Your task to perform on an android device: Open the phone app and click the voicemail tab. Image 0: 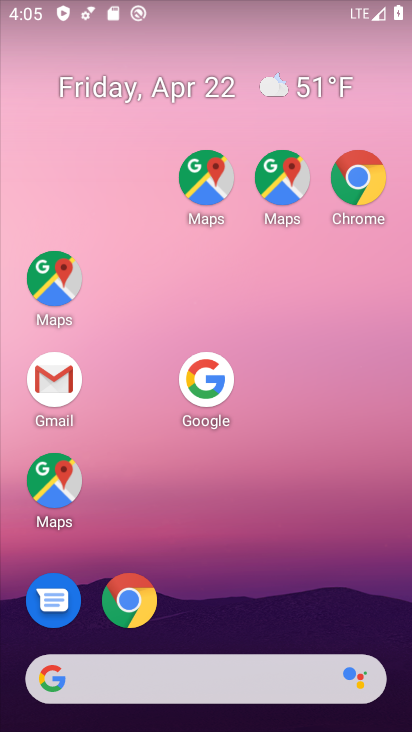
Step 0: drag from (334, 624) to (124, 15)
Your task to perform on an android device: Open the phone app and click the voicemail tab. Image 1: 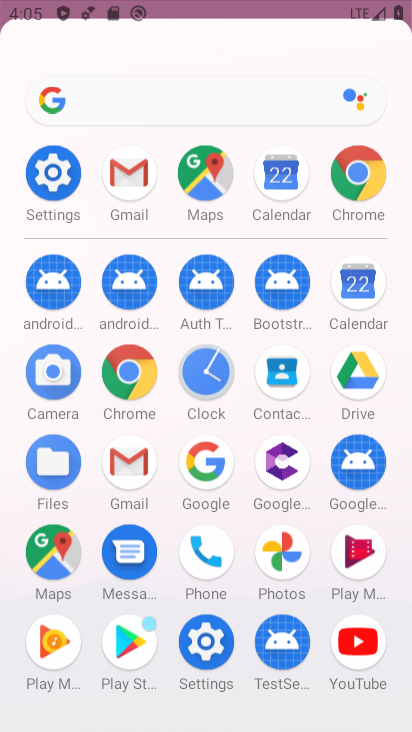
Step 1: click (13, 29)
Your task to perform on an android device: Open the phone app and click the voicemail tab. Image 2: 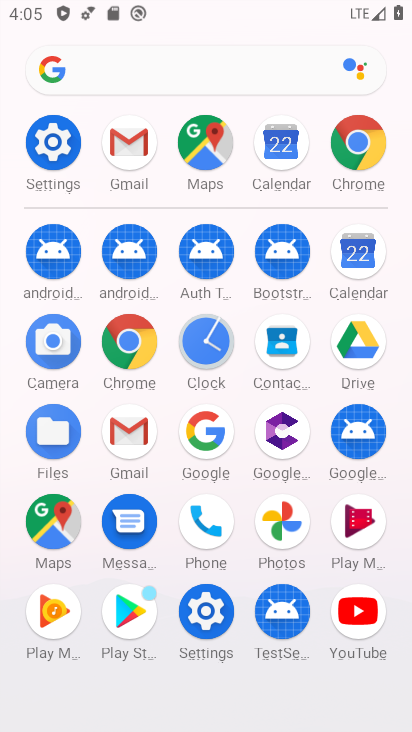
Step 2: click (205, 520)
Your task to perform on an android device: Open the phone app and click the voicemail tab. Image 3: 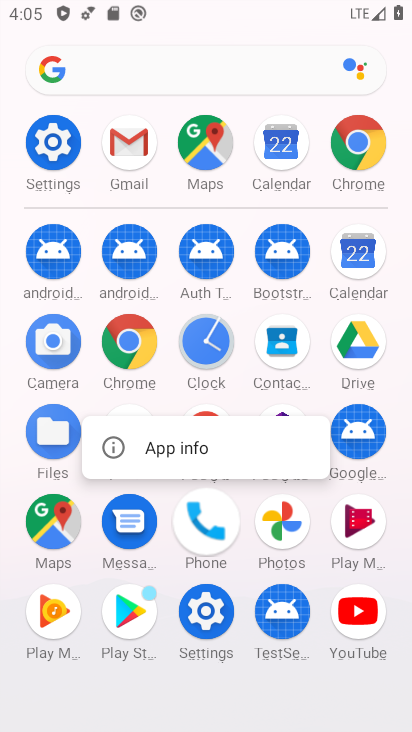
Step 3: click (204, 518)
Your task to perform on an android device: Open the phone app and click the voicemail tab. Image 4: 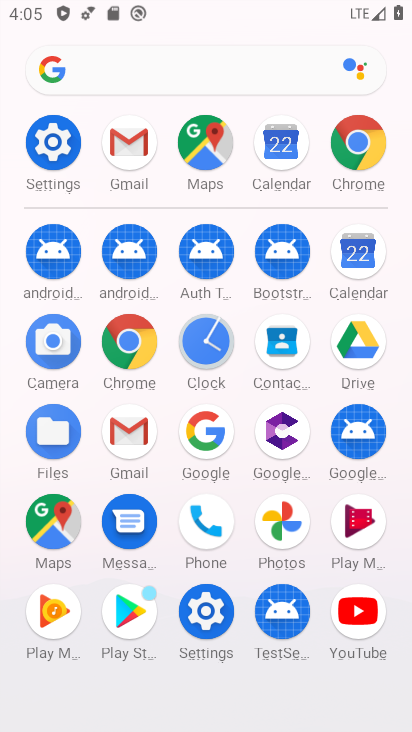
Step 4: click (203, 519)
Your task to perform on an android device: Open the phone app and click the voicemail tab. Image 5: 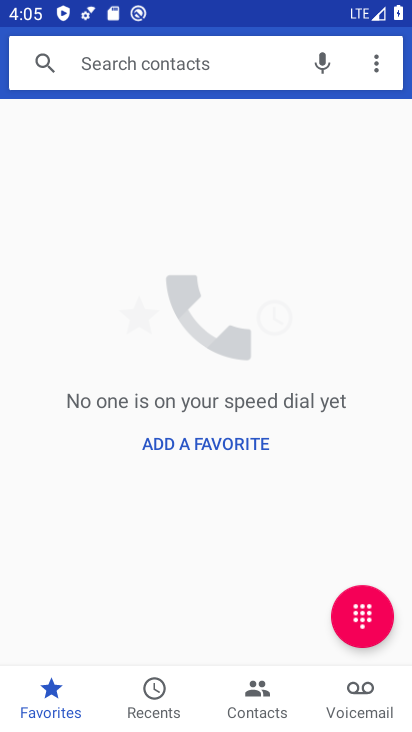
Step 5: click (361, 697)
Your task to perform on an android device: Open the phone app and click the voicemail tab. Image 6: 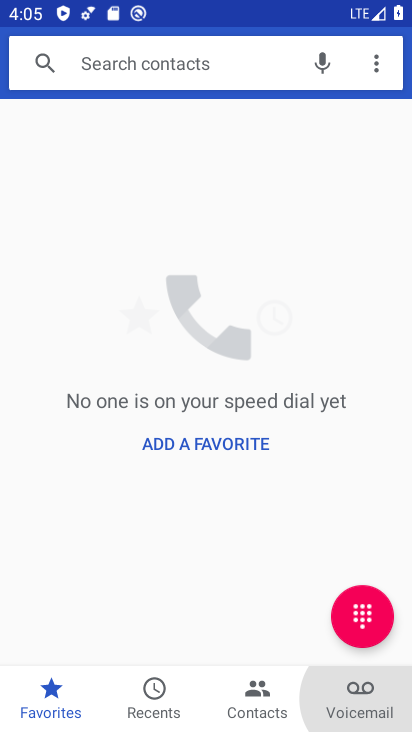
Step 6: click (361, 697)
Your task to perform on an android device: Open the phone app and click the voicemail tab. Image 7: 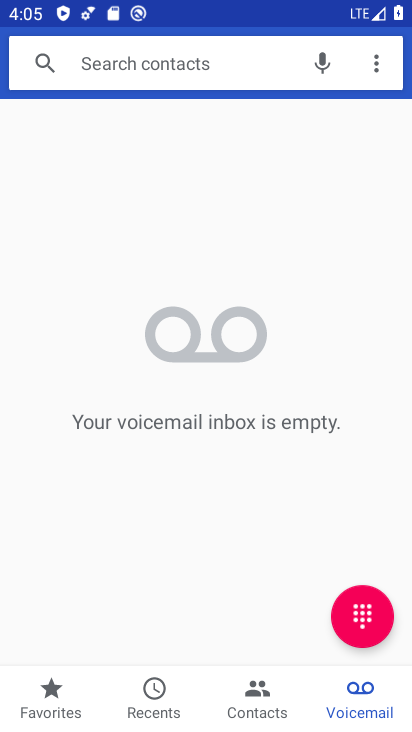
Step 7: task complete